Your task to perform on an android device: Open Youtube and go to the subscriptions tab Image 0: 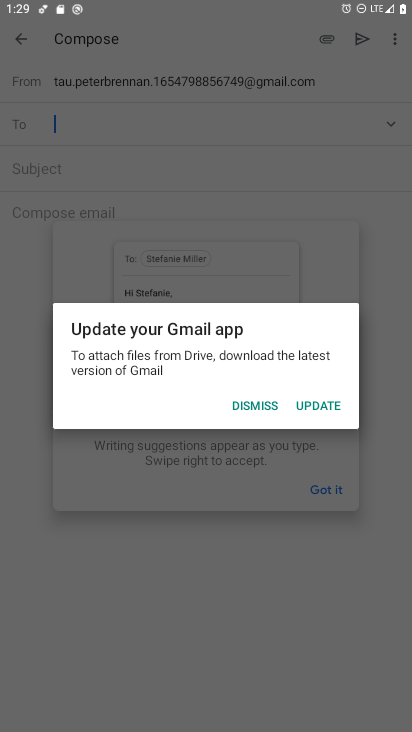
Step 0: press home button
Your task to perform on an android device: Open Youtube and go to the subscriptions tab Image 1: 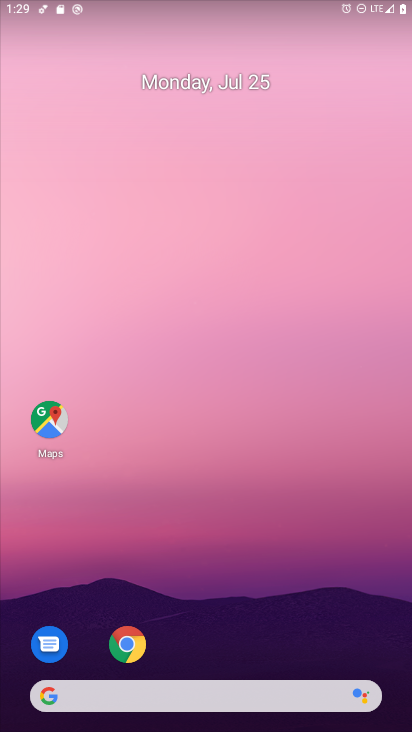
Step 1: drag from (297, 667) to (323, 212)
Your task to perform on an android device: Open Youtube and go to the subscriptions tab Image 2: 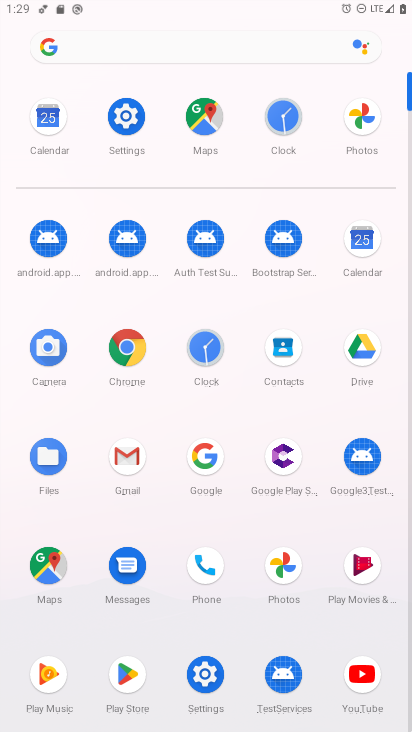
Step 2: click (359, 669)
Your task to perform on an android device: Open Youtube and go to the subscriptions tab Image 3: 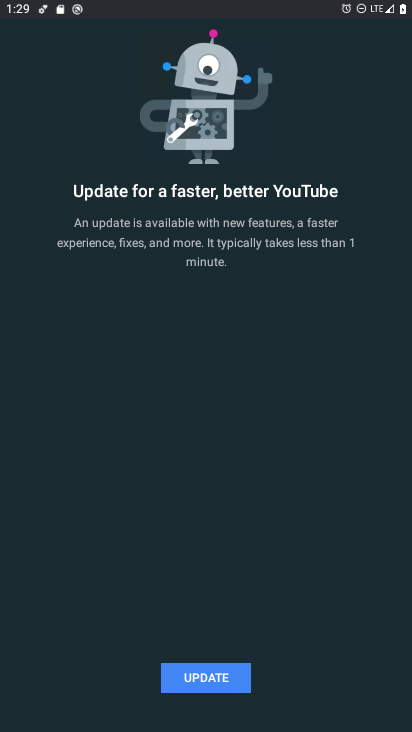
Step 3: click (178, 687)
Your task to perform on an android device: Open Youtube and go to the subscriptions tab Image 4: 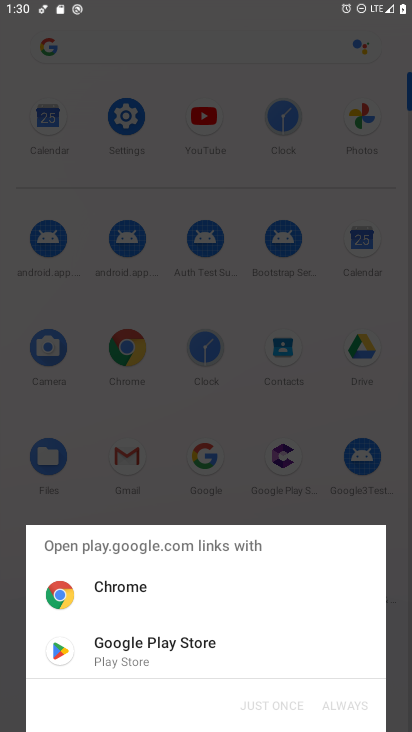
Step 4: click (135, 654)
Your task to perform on an android device: Open Youtube and go to the subscriptions tab Image 5: 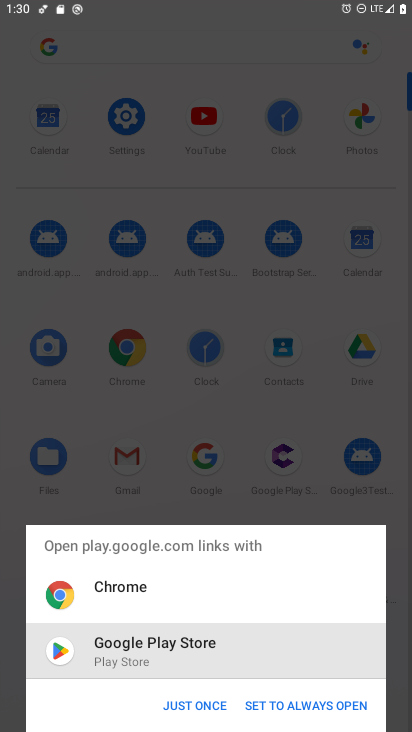
Step 5: click (199, 706)
Your task to perform on an android device: Open Youtube and go to the subscriptions tab Image 6: 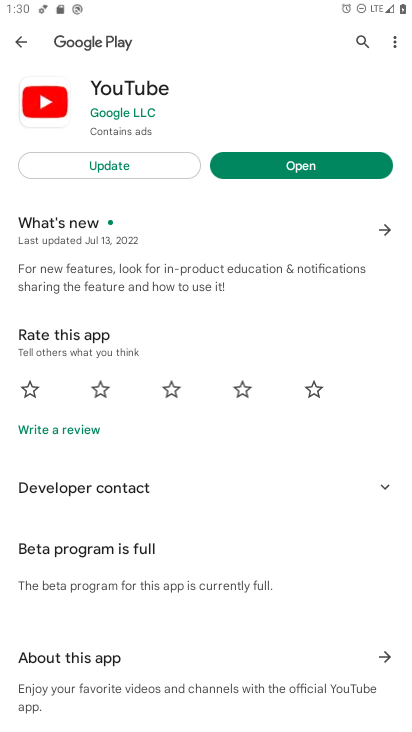
Step 6: click (173, 160)
Your task to perform on an android device: Open Youtube and go to the subscriptions tab Image 7: 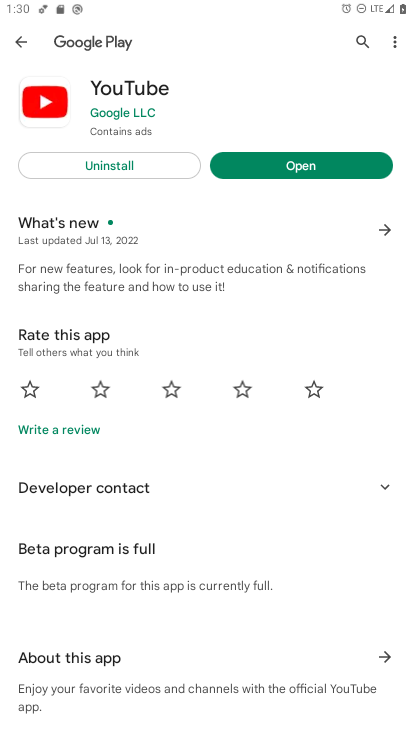
Step 7: click (284, 167)
Your task to perform on an android device: Open Youtube and go to the subscriptions tab Image 8: 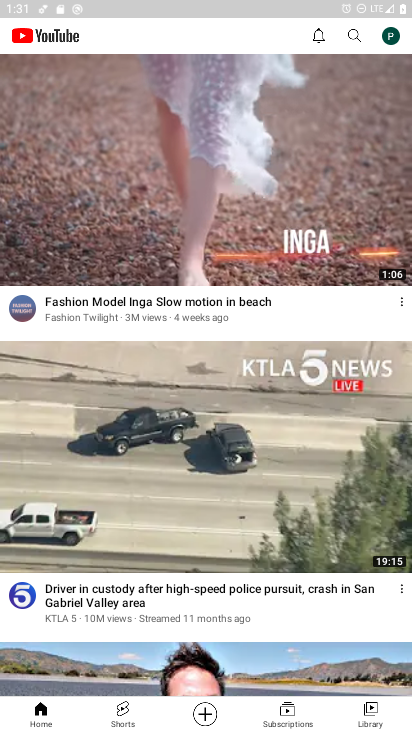
Step 8: click (283, 712)
Your task to perform on an android device: Open Youtube and go to the subscriptions tab Image 9: 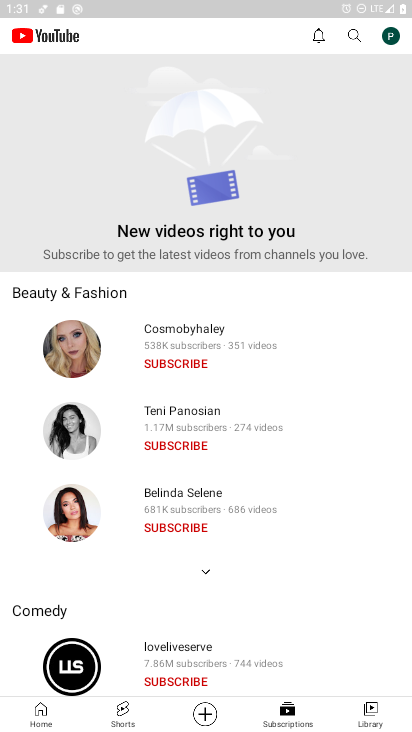
Step 9: task complete